Your task to perform on an android device: toggle notifications settings in the gmail app Image 0: 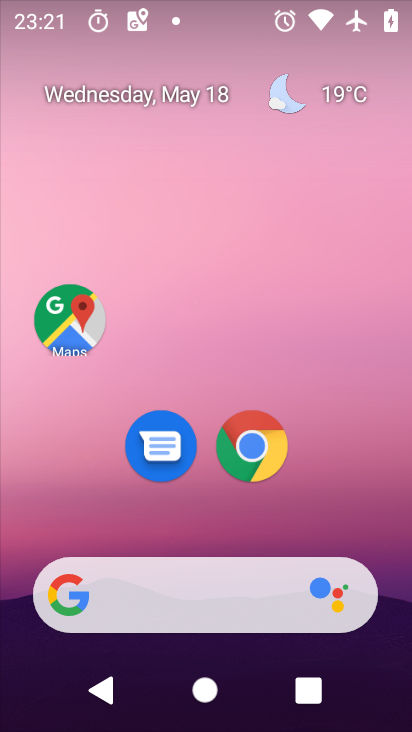
Step 0: press home button
Your task to perform on an android device: toggle notifications settings in the gmail app Image 1: 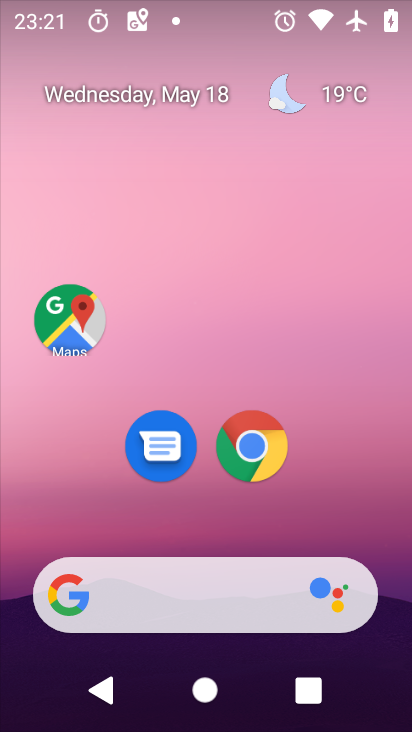
Step 1: drag from (215, 563) to (283, 86)
Your task to perform on an android device: toggle notifications settings in the gmail app Image 2: 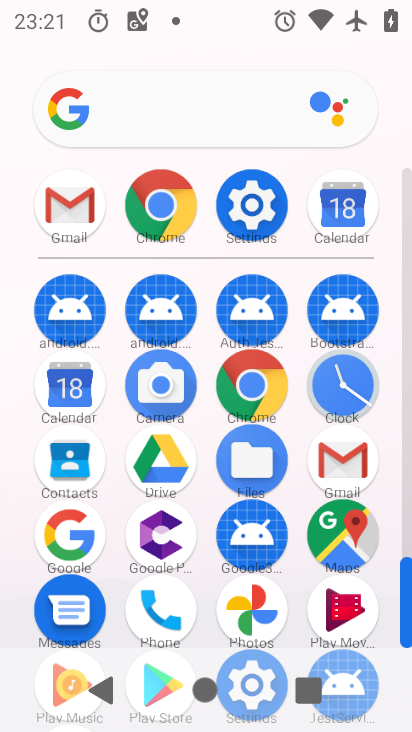
Step 2: click (339, 465)
Your task to perform on an android device: toggle notifications settings in the gmail app Image 3: 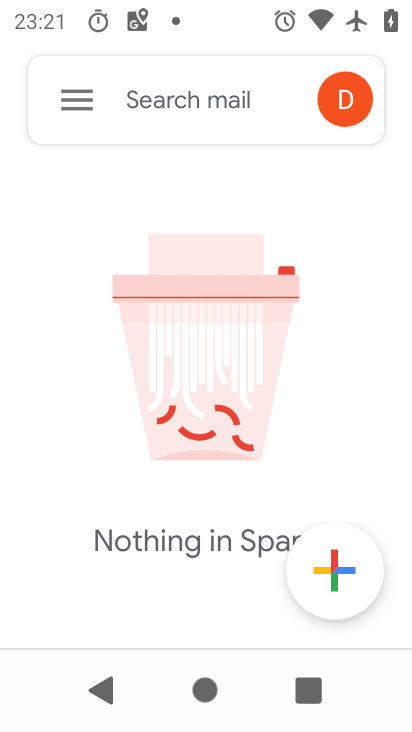
Step 3: click (76, 110)
Your task to perform on an android device: toggle notifications settings in the gmail app Image 4: 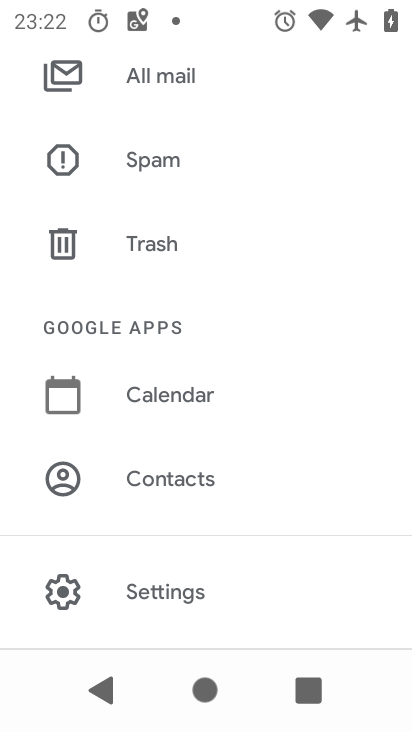
Step 4: click (172, 588)
Your task to perform on an android device: toggle notifications settings in the gmail app Image 5: 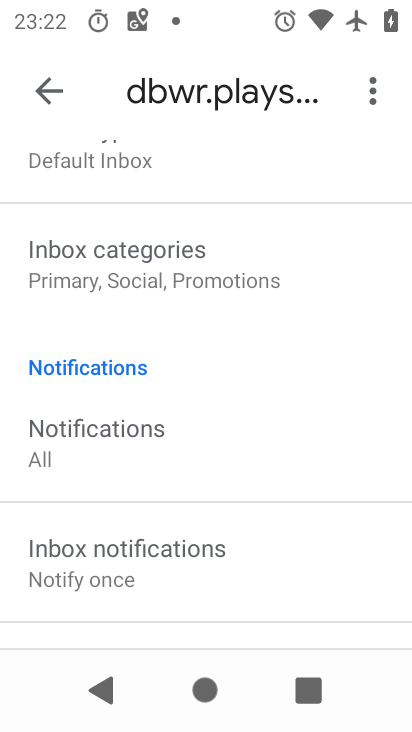
Step 5: click (88, 444)
Your task to perform on an android device: toggle notifications settings in the gmail app Image 6: 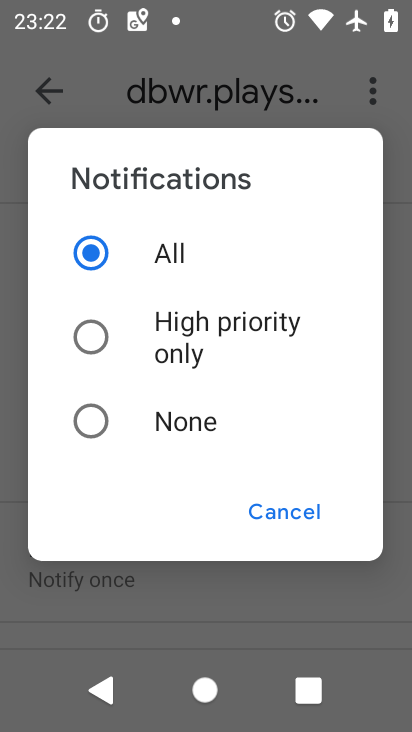
Step 6: click (85, 424)
Your task to perform on an android device: toggle notifications settings in the gmail app Image 7: 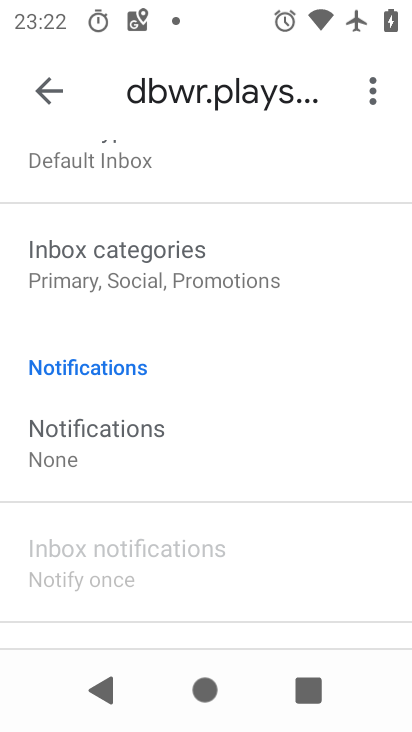
Step 7: task complete